Your task to perform on an android device: Open calendar and show me the second week of next month Image 0: 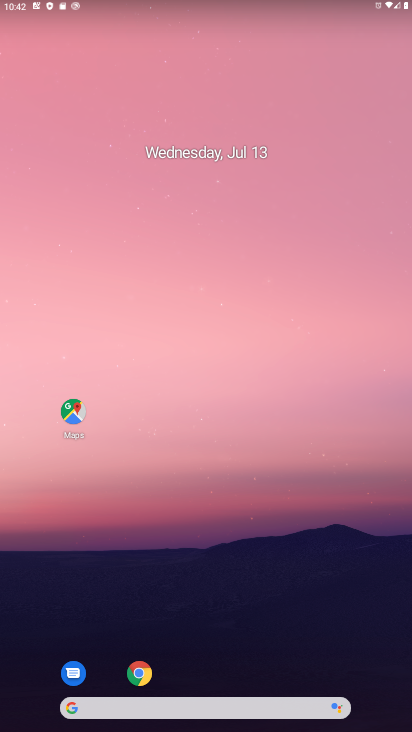
Step 0: click (190, 155)
Your task to perform on an android device: Open calendar and show me the second week of next month Image 1: 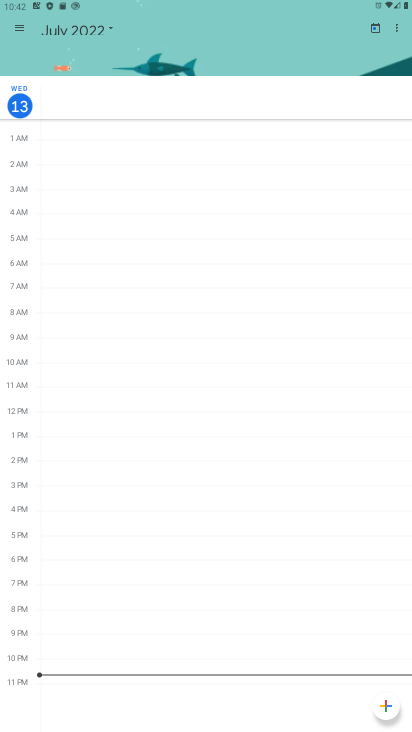
Step 1: click (85, 26)
Your task to perform on an android device: Open calendar and show me the second week of next month Image 2: 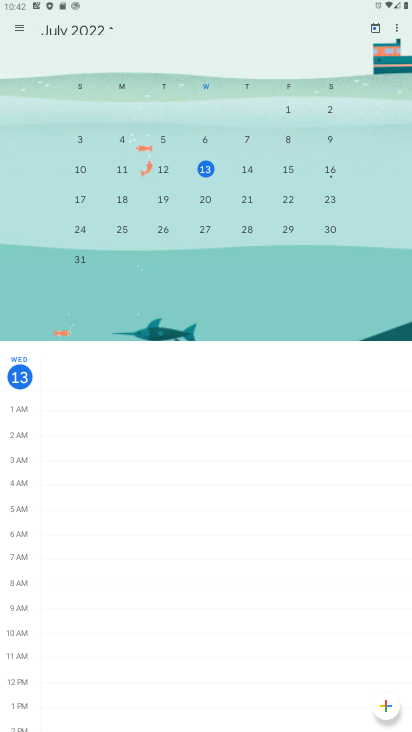
Step 2: drag from (379, 267) to (50, 229)
Your task to perform on an android device: Open calendar and show me the second week of next month Image 3: 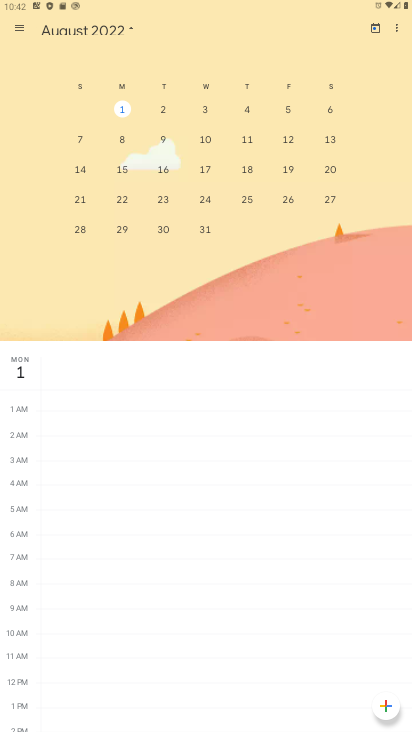
Step 3: click (209, 139)
Your task to perform on an android device: Open calendar and show me the second week of next month Image 4: 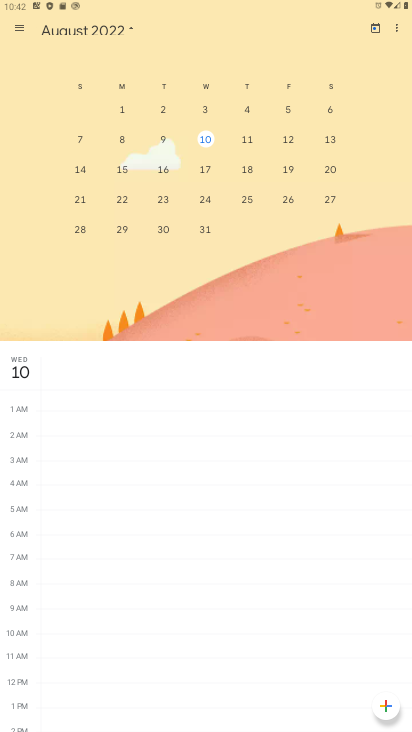
Step 4: task complete